Your task to perform on an android device: remove spam from my inbox in the gmail app Image 0: 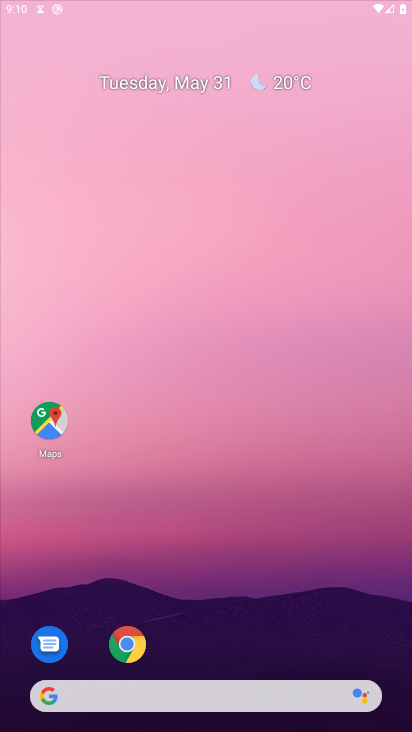
Step 0: press home button
Your task to perform on an android device: remove spam from my inbox in the gmail app Image 1: 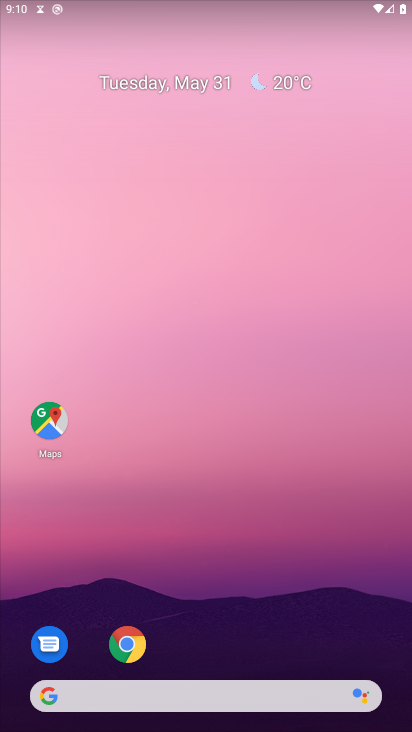
Step 1: drag from (208, 662) to (266, 202)
Your task to perform on an android device: remove spam from my inbox in the gmail app Image 2: 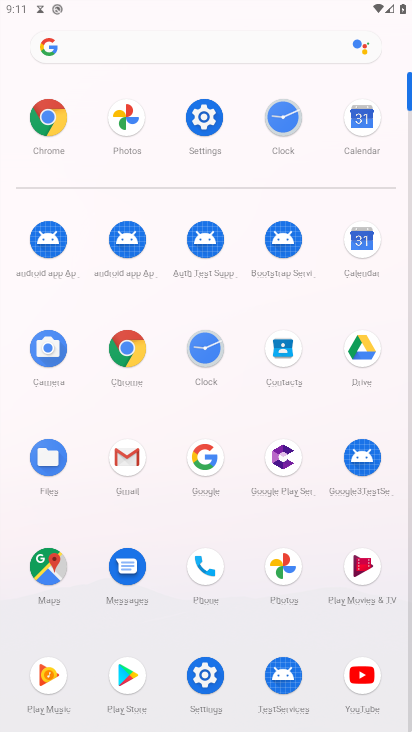
Step 2: click (125, 452)
Your task to perform on an android device: remove spam from my inbox in the gmail app Image 3: 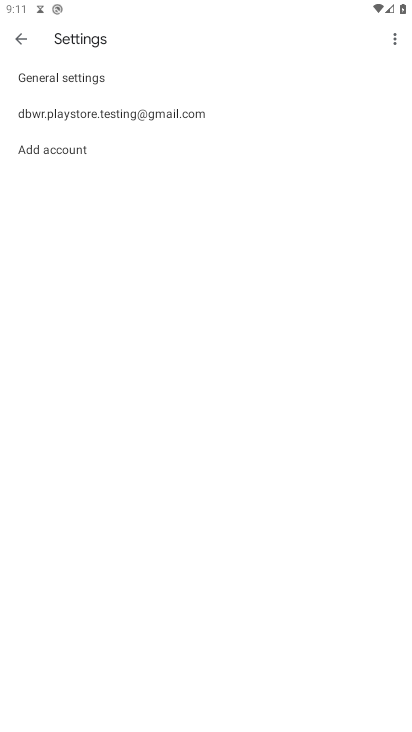
Step 3: click (18, 34)
Your task to perform on an android device: remove spam from my inbox in the gmail app Image 4: 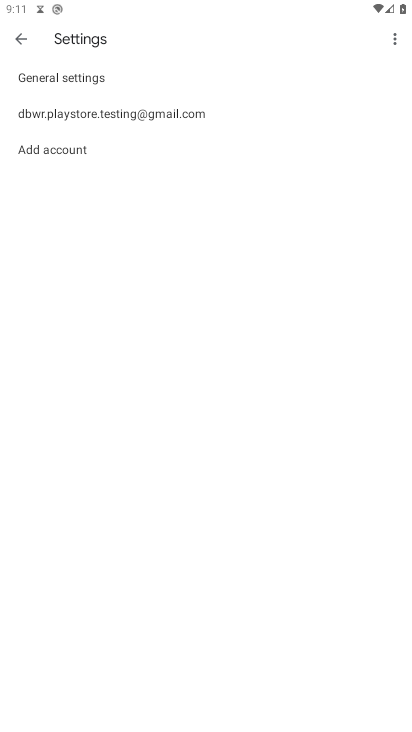
Step 4: click (19, 26)
Your task to perform on an android device: remove spam from my inbox in the gmail app Image 5: 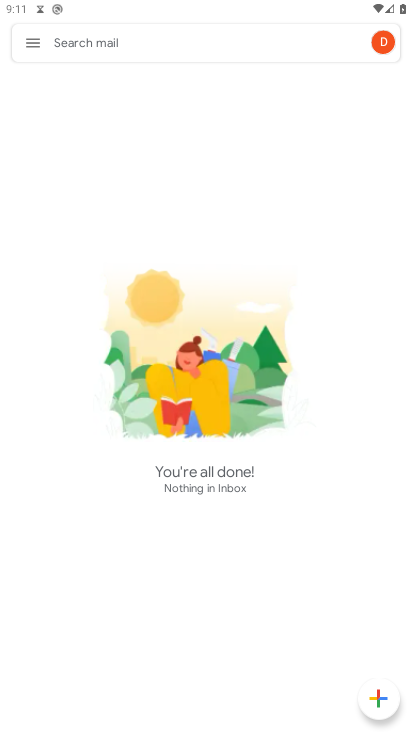
Step 5: click (38, 31)
Your task to perform on an android device: remove spam from my inbox in the gmail app Image 6: 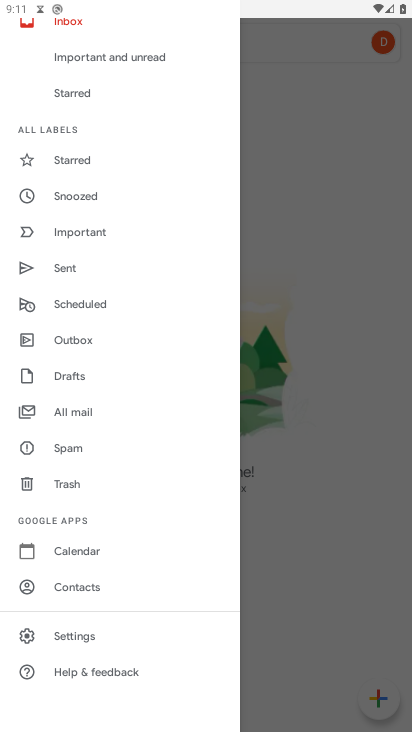
Step 6: click (82, 443)
Your task to perform on an android device: remove spam from my inbox in the gmail app Image 7: 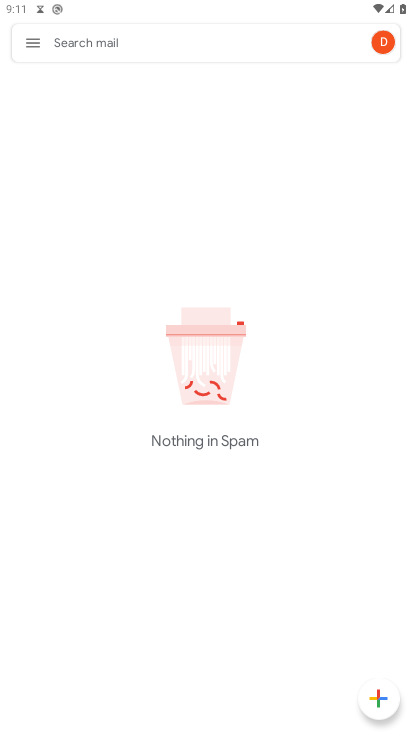
Step 7: task complete